Your task to perform on an android device: open chrome privacy settings Image 0: 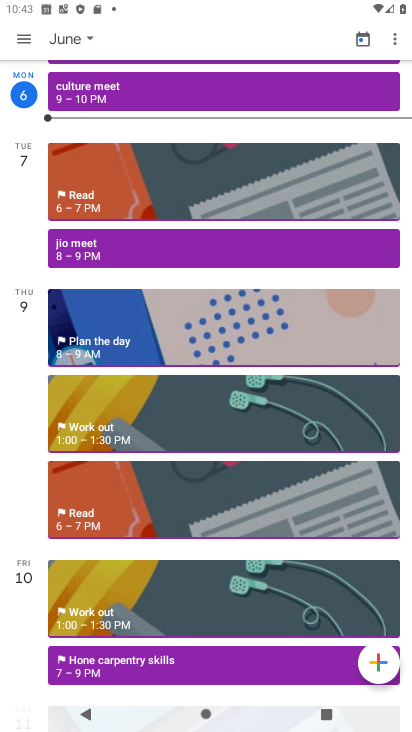
Step 0: press home button
Your task to perform on an android device: open chrome privacy settings Image 1: 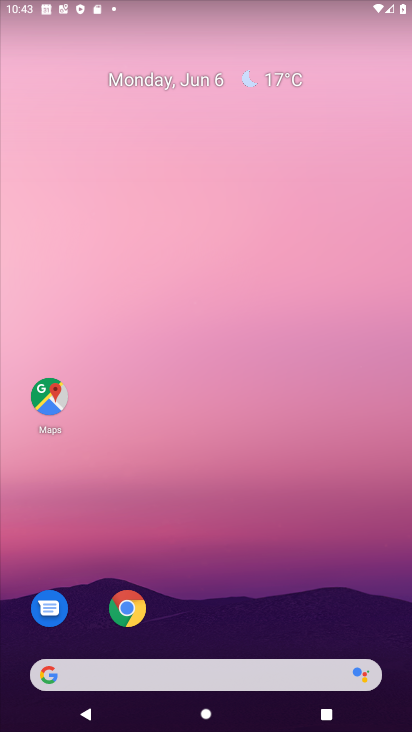
Step 1: click (122, 617)
Your task to perform on an android device: open chrome privacy settings Image 2: 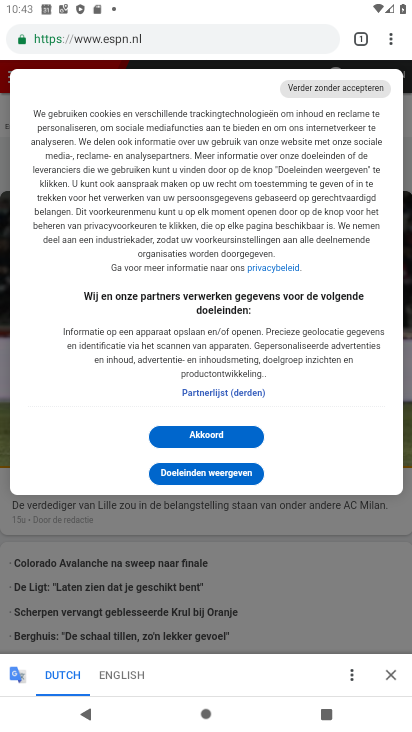
Step 2: click (392, 35)
Your task to perform on an android device: open chrome privacy settings Image 3: 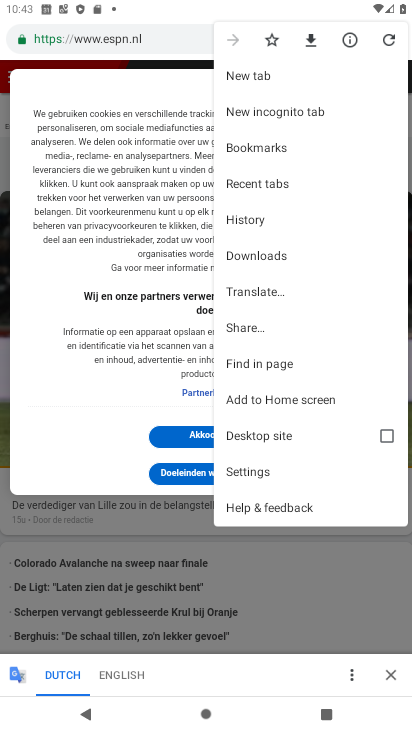
Step 3: click (267, 466)
Your task to perform on an android device: open chrome privacy settings Image 4: 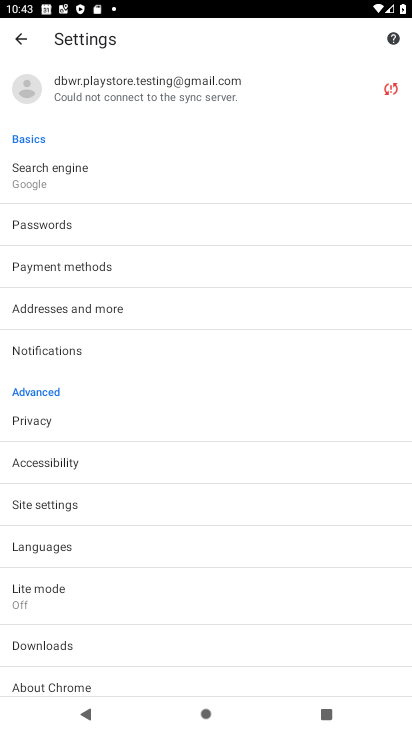
Step 4: click (137, 423)
Your task to perform on an android device: open chrome privacy settings Image 5: 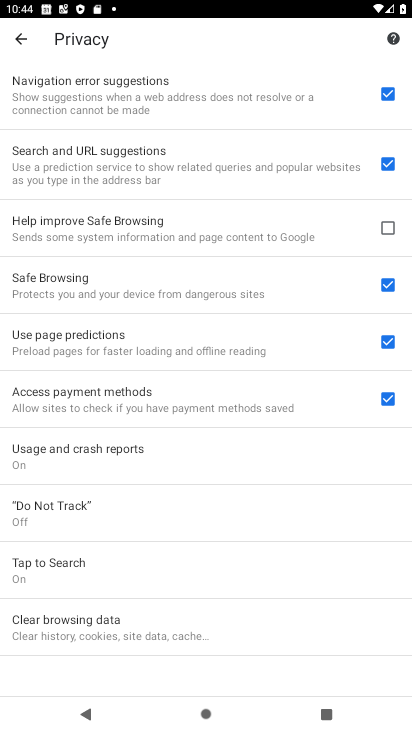
Step 5: task complete